Your task to perform on an android device: open a bookmark in the chrome app Image 0: 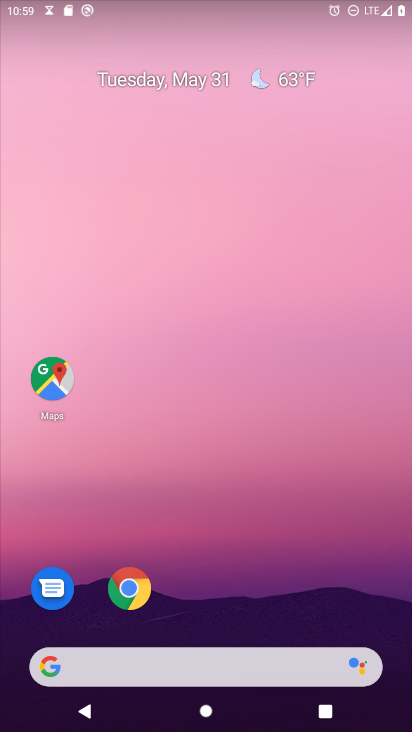
Step 0: click (130, 587)
Your task to perform on an android device: open a bookmark in the chrome app Image 1: 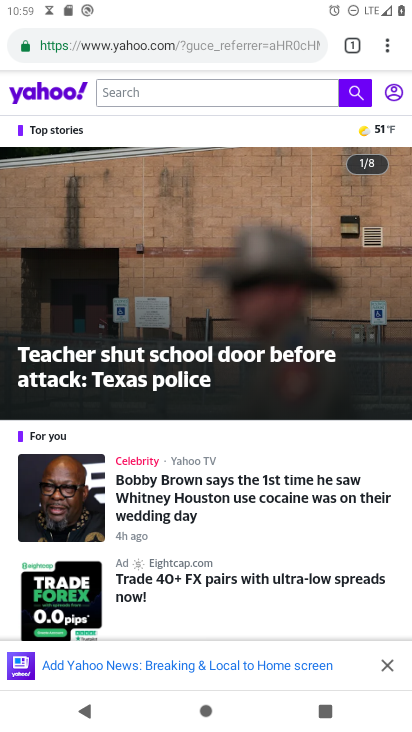
Step 1: click (388, 46)
Your task to perform on an android device: open a bookmark in the chrome app Image 2: 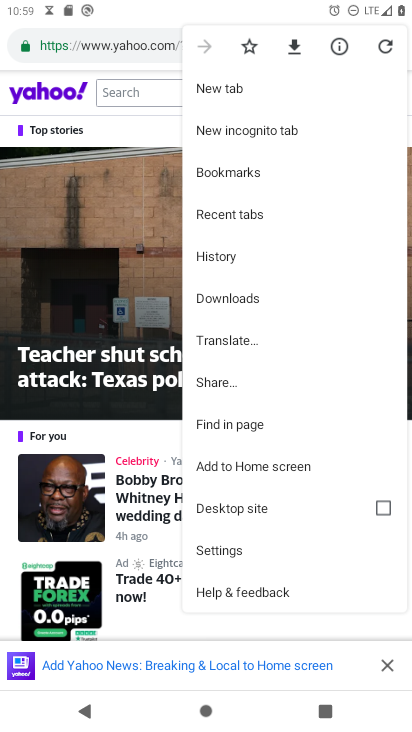
Step 2: click (250, 169)
Your task to perform on an android device: open a bookmark in the chrome app Image 3: 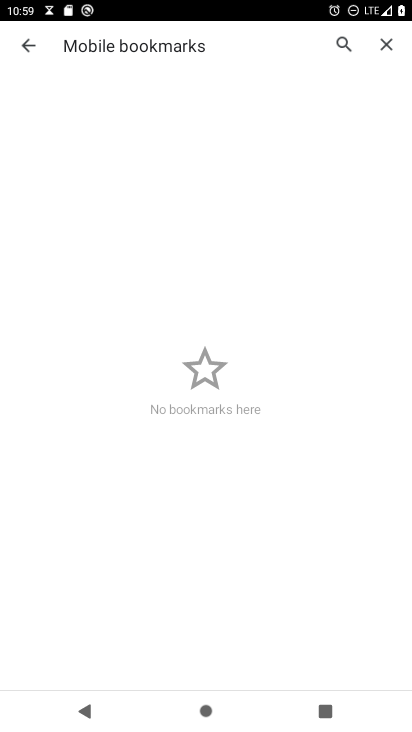
Step 3: task complete